Your task to perform on an android device: Open Google Image 0: 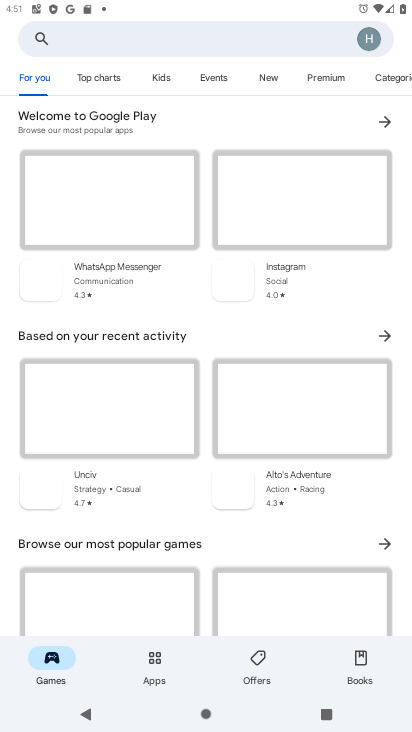
Step 0: press back button
Your task to perform on an android device: Open Google Image 1: 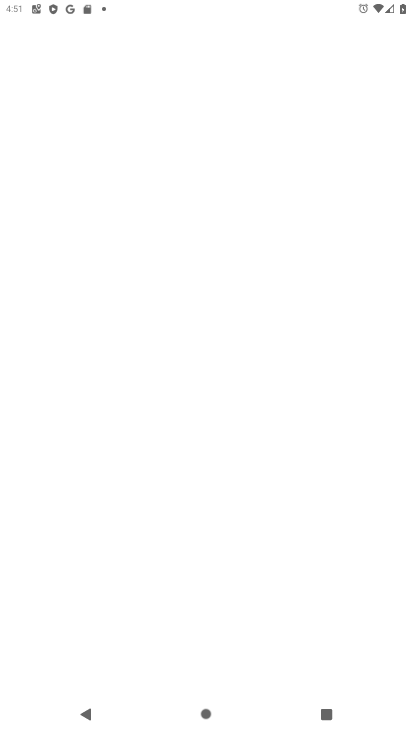
Step 1: press home button
Your task to perform on an android device: Open Google Image 2: 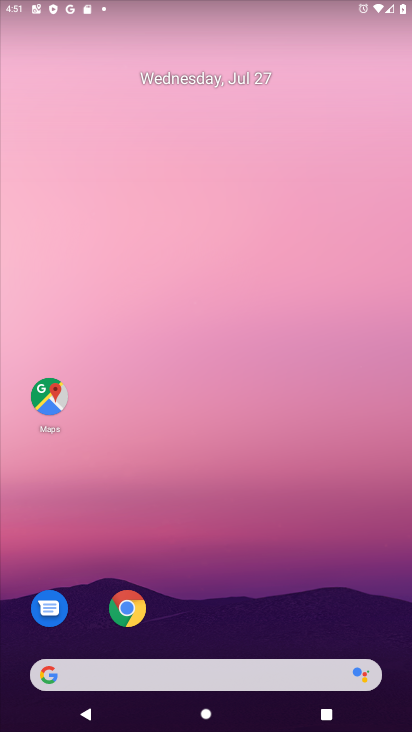
Step 2: click (184, 683)
Your task to perform on an android device: Open Google Image 3: 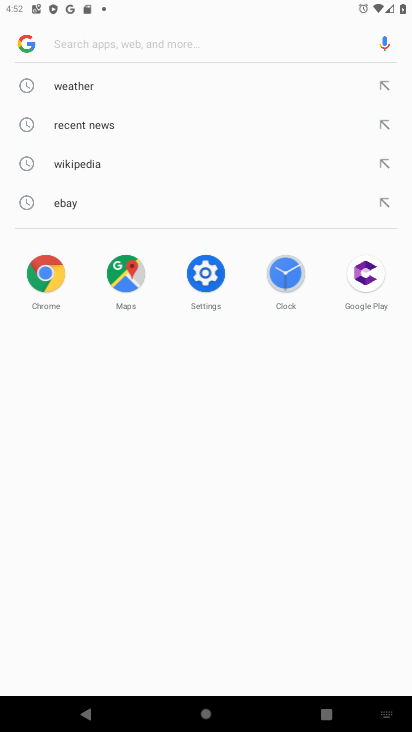
Step 3: task complete